Your task to perform on an android device: turn on bluetooth scan Image 0: 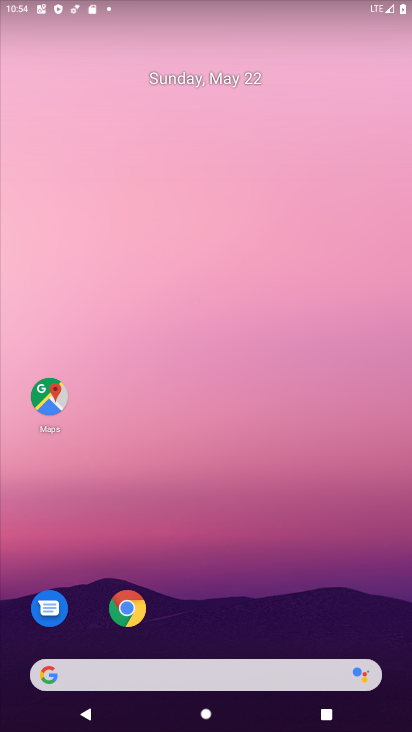
Step 0: drag from (222, 726) to (238, 106)
Your task to perform on an android device: turn on bluetooth scan Image 1: 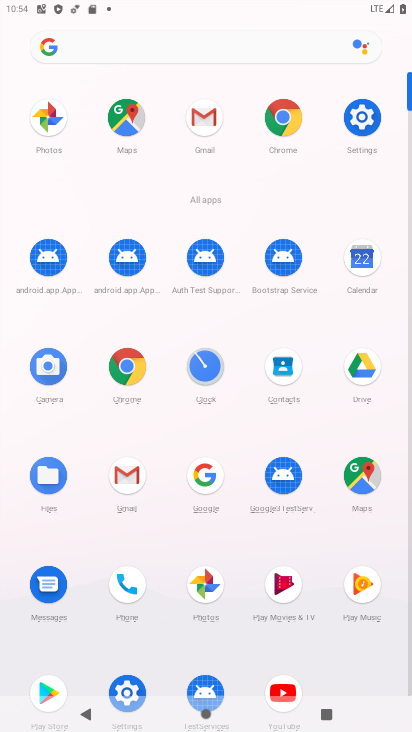
Step 1: click (365, 113)
Your task to perform on an android device: turn on bluetooth scan Image 2: 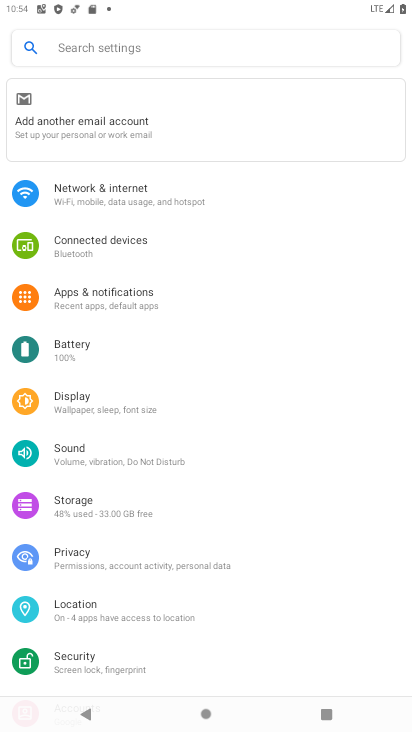
Step 2: click (85, 611)
Your task to perform on an android device: turn on bluetooth scan Image 3: 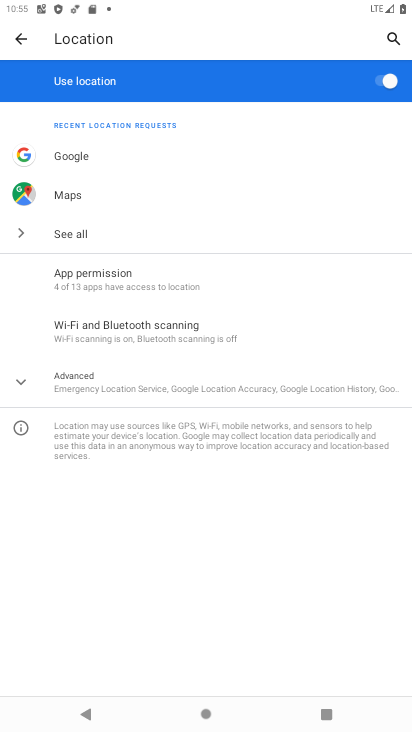
Step 3: click (113, 331)
Your task to perform on an android device: turn on bluetooth scan Image 4: 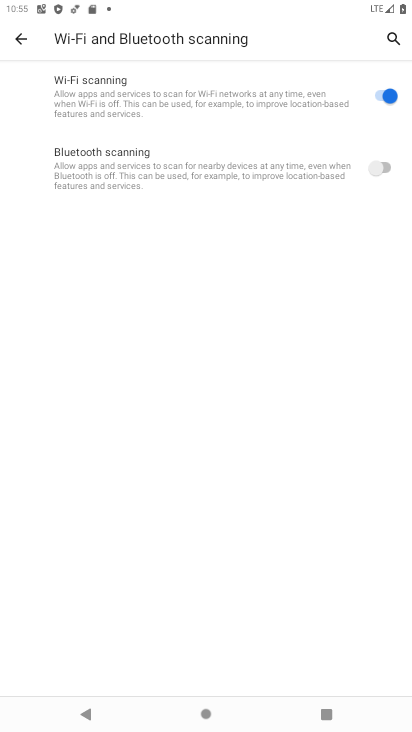
Step 4: click (389, 168)
Your task to perform on an android device: turn on bluetooth scan Image 5: 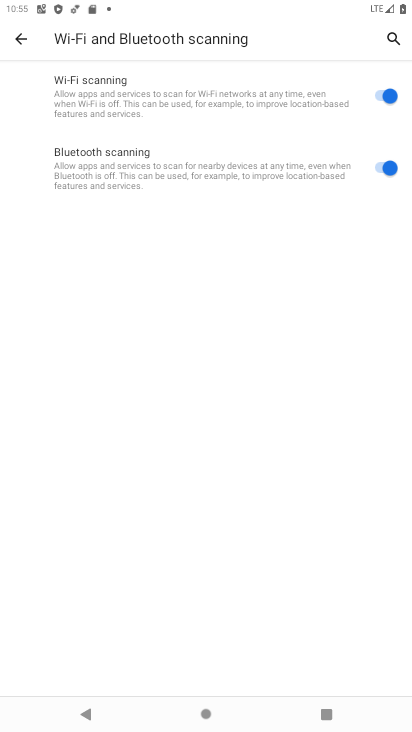
Step 5: task complete